Your task to perform on an android device: stop showing notifications on the lock screen Image 0: 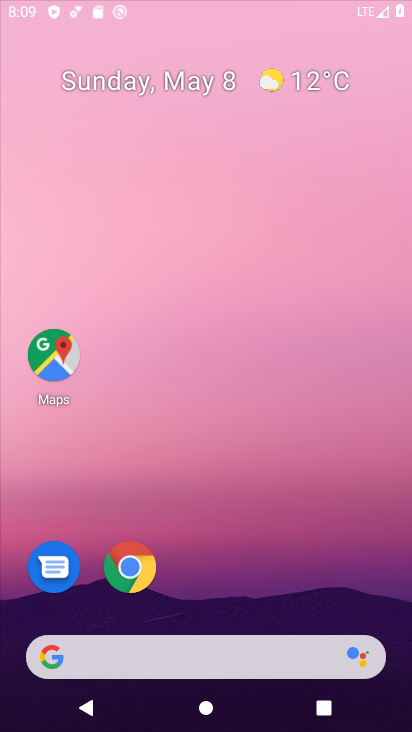
Step 0: drag from (195, 642) to (314, 68)
Your task to perform on an android device: stop showing notifications on the lock screen Image 1: 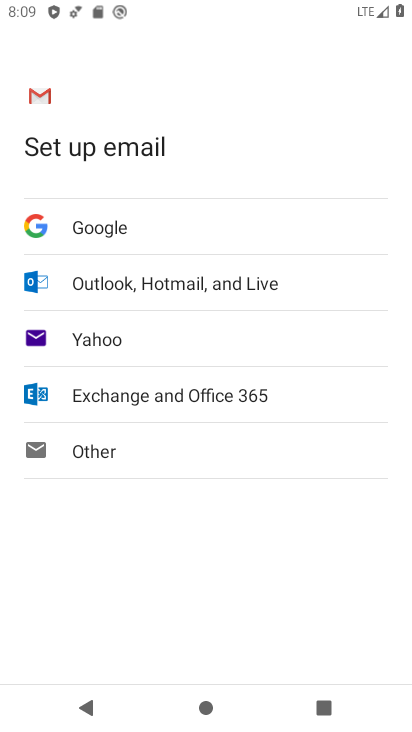
Step 1: press back button
Your task to perform on an android device: stop showing notifications on the lock screen Image 2: 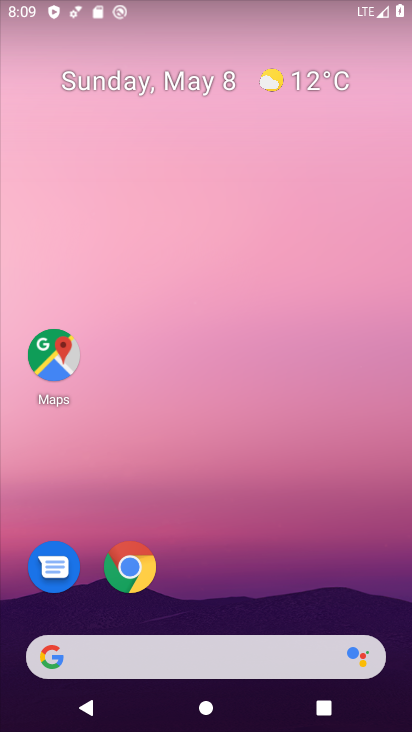
Step 2: drag from (215, 643) to (183, 8)
Your task to perform on an android device: stop showing notifications on the lock screen Image 3: 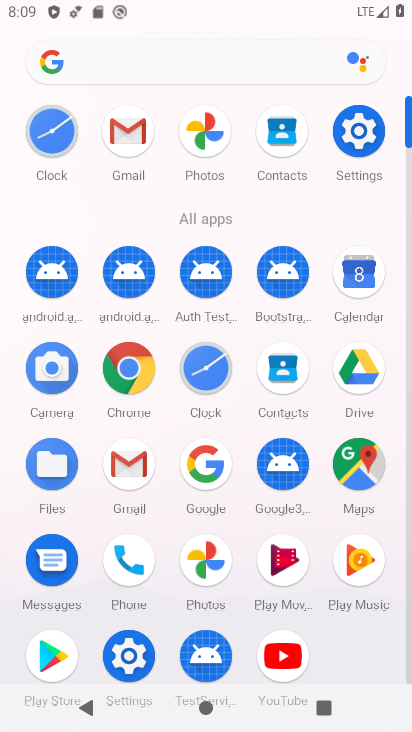
Step 3: click (365, 184)
Your task to perform on an android device: stop showing notifications on the lock screen Image 4: 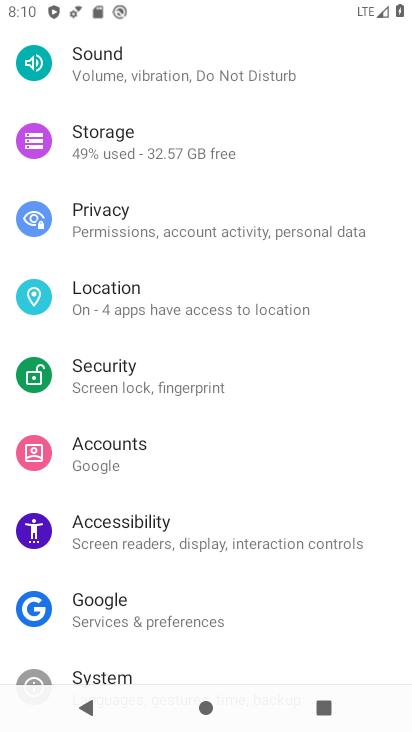
Step 4: drag from (119, 181) to (94, 706)
Your task to perform on an android device: stop showing notifications on the lock screen Image 5: 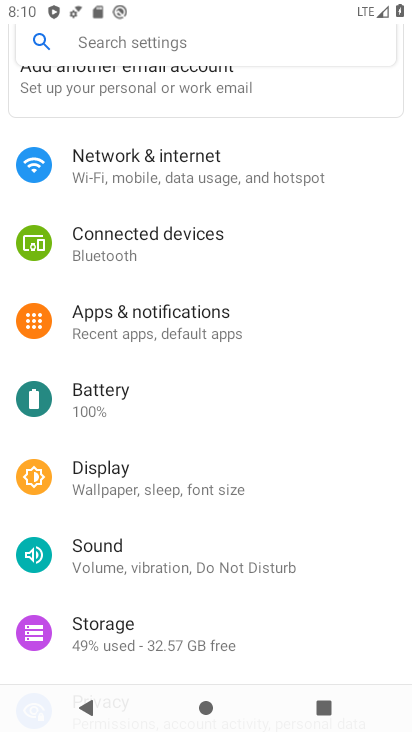
Step 5: click (168, 348)
Your task to perform on an android device: stop showing notifications on the lock screen Image 6: 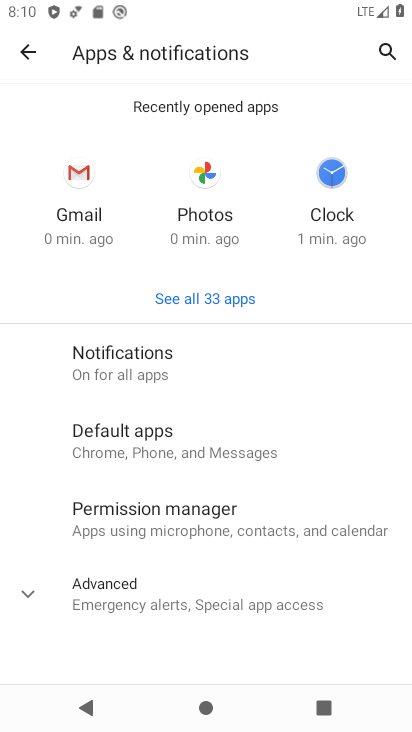
Step 6: click (158, 368)
Your task to perform on an android device: stop showing notifications on the lock screen Image 7: 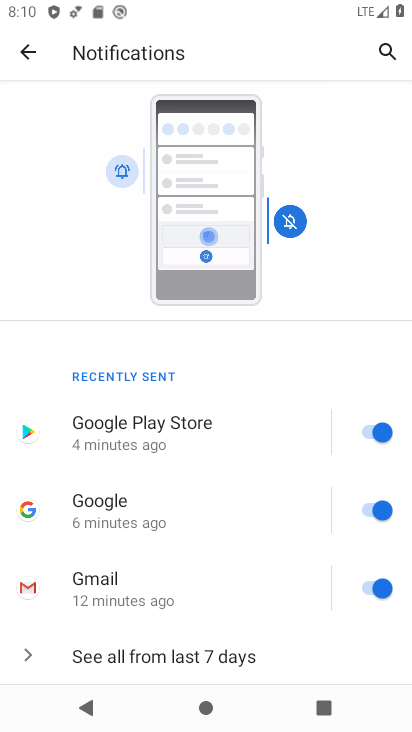
Step 7: drag from (178, 583) to (286, 27)
Your task to perform on an android device: stop showing notifications on the lock screen Image 8: 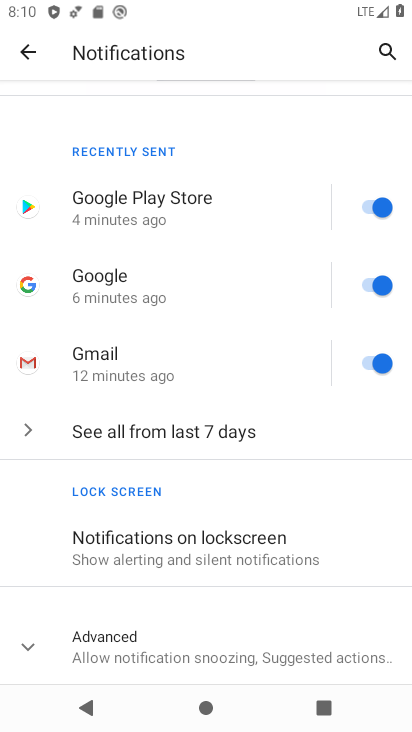
Step 8: click (216, 561)
Your task to perform on an android device: stop showing notifications on the lock screen Image 9: 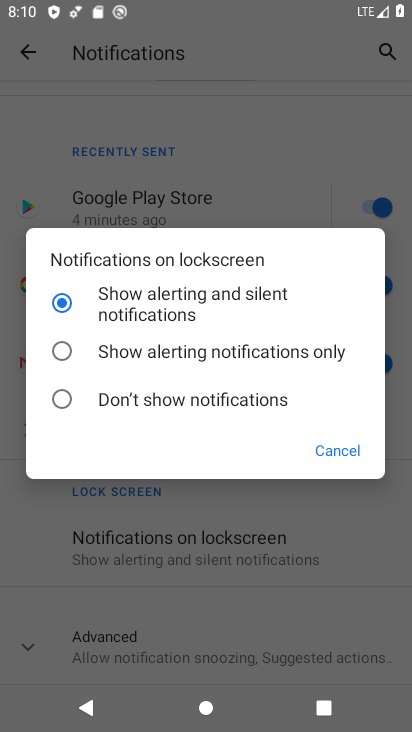
Step 9: click (219, 400)
Your task to perform on an android device: stop showing notifications on the lock screen Image 10: 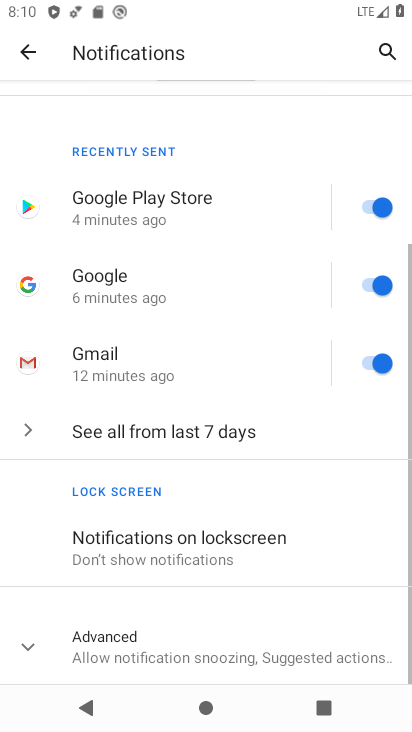
Step 10: task complete